Your task to perform on an android device: Open the Play Movies app and select the watchlist tab. Image 0: 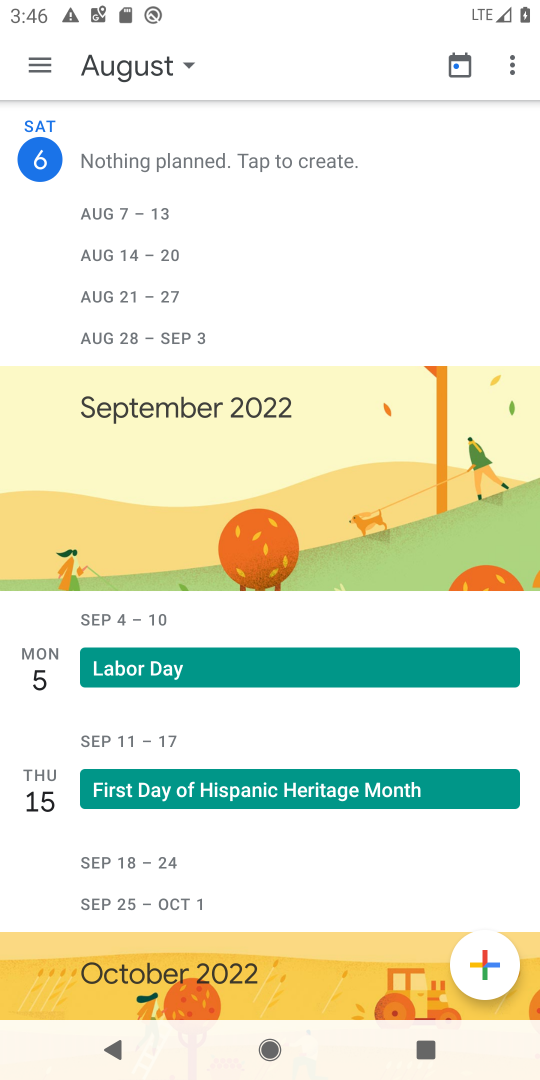
Step 0: press back button
Your task to perform on an android device: Open the Play Movies app and select the watchlist tab. Image 1: 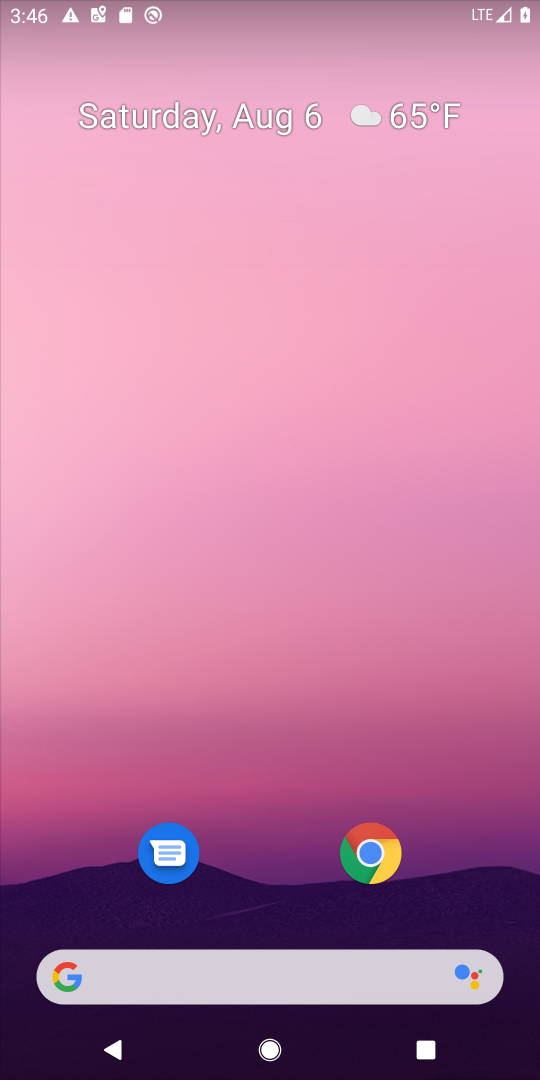
Step 1: drag from (252, 884) to (354, 131)
Your task to perform on an android device: Open the Play Movies app and select the watchlist tab. Image 2: 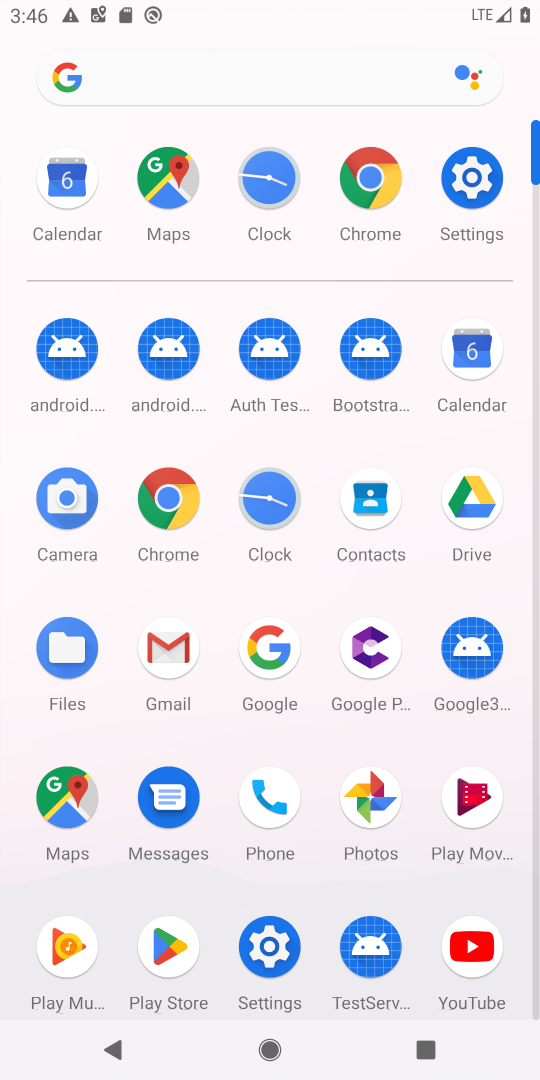
Step 2: click (459, 805)
Your task to perform on an android device: Open the Play Movies app and select the watchlist tab. Image 3: 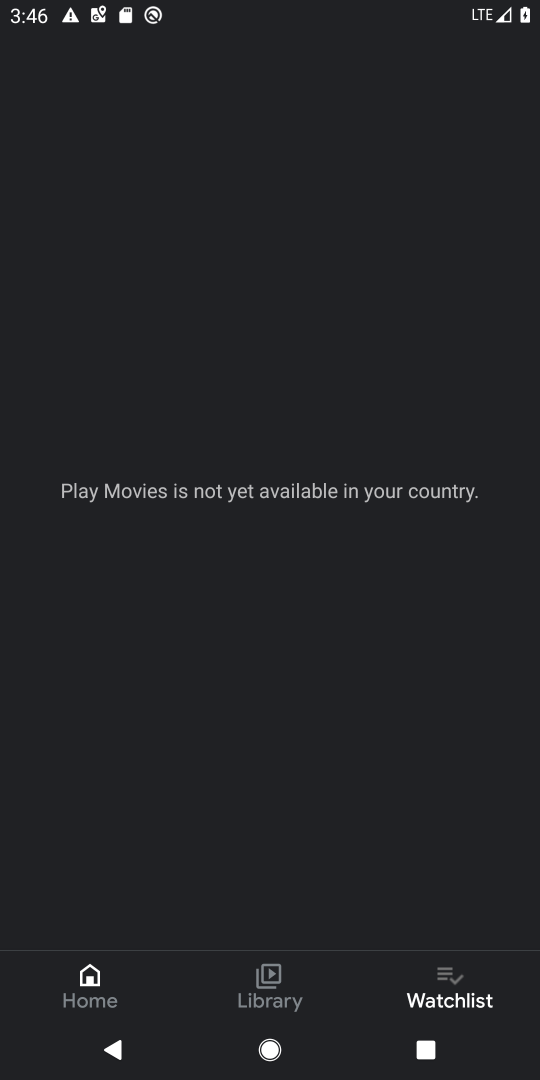
Step 3: click (440, 991)
Your task to perform on an android device: Open the Play Movies app and select the watchlist tab. Image 4: 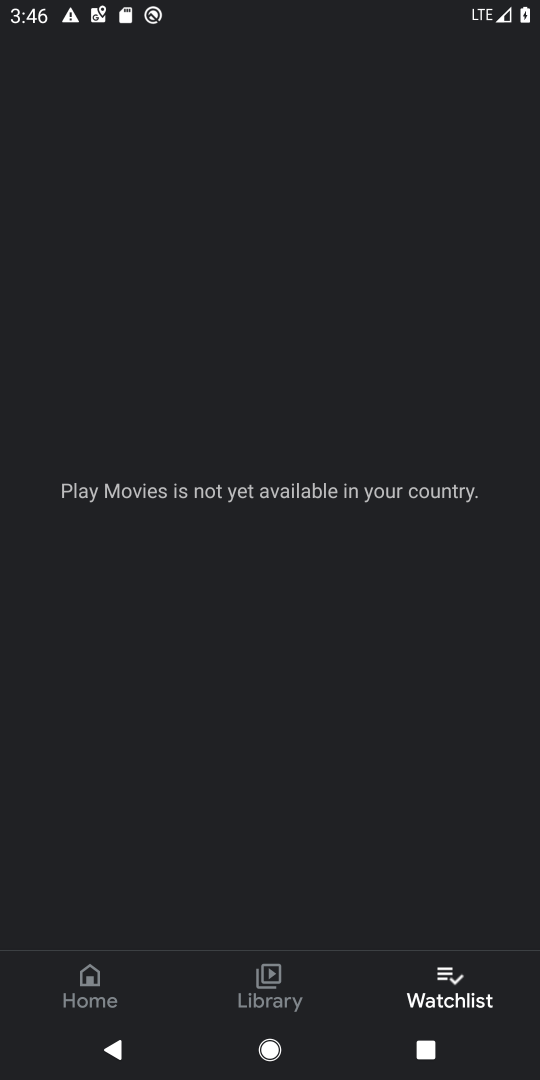
Step 4: task complete